Your task to perform on an android device: see creations saved in the google photos Image 0: 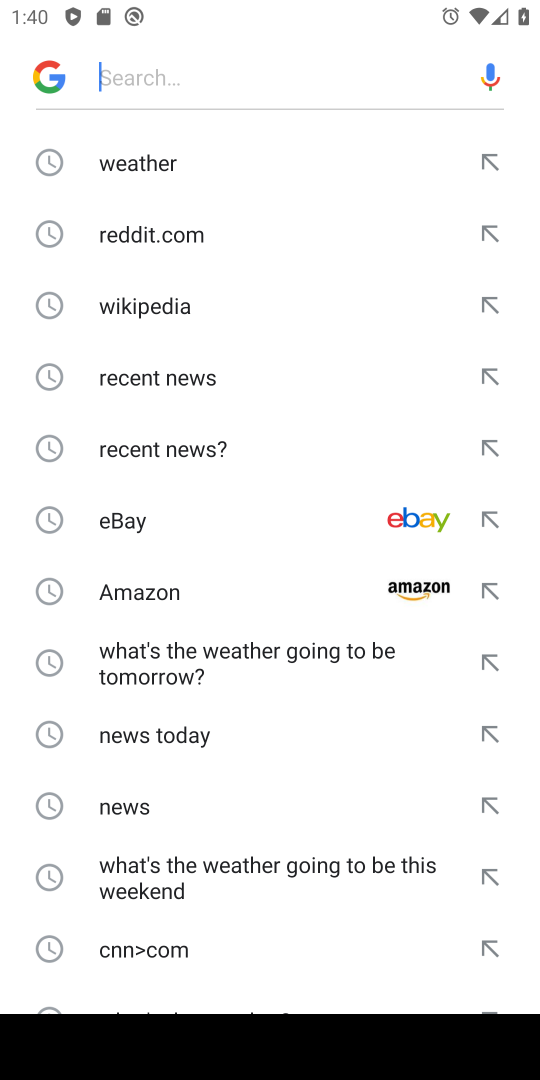
Step 0: press back button
Your task to perform on an android device: see creations saved in the google photos Image 1: 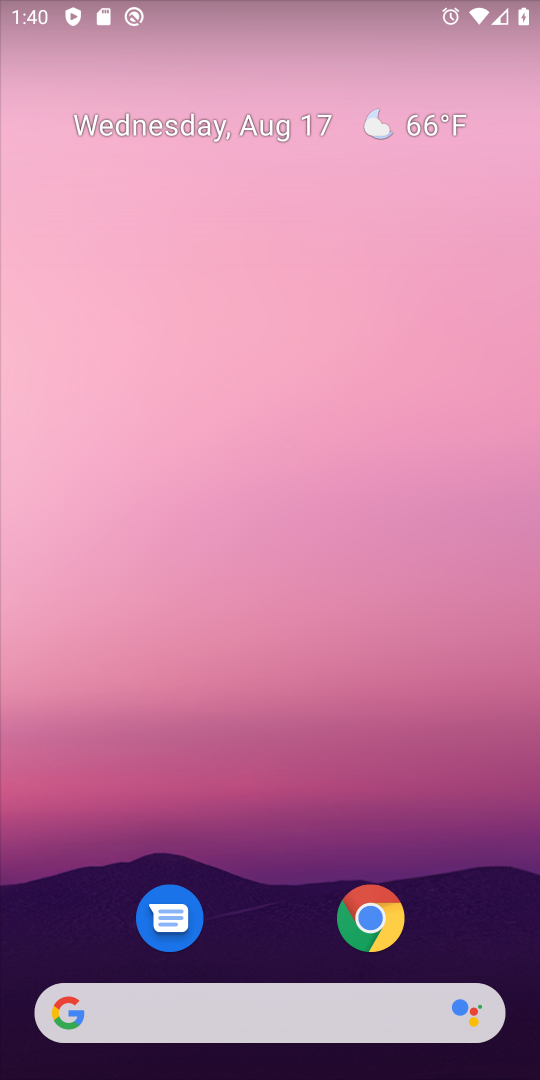
Step 1: drag from (220, 1053) to (229, 240)
Your task to perform on an android device: see creations saved in the google photos Image 2: 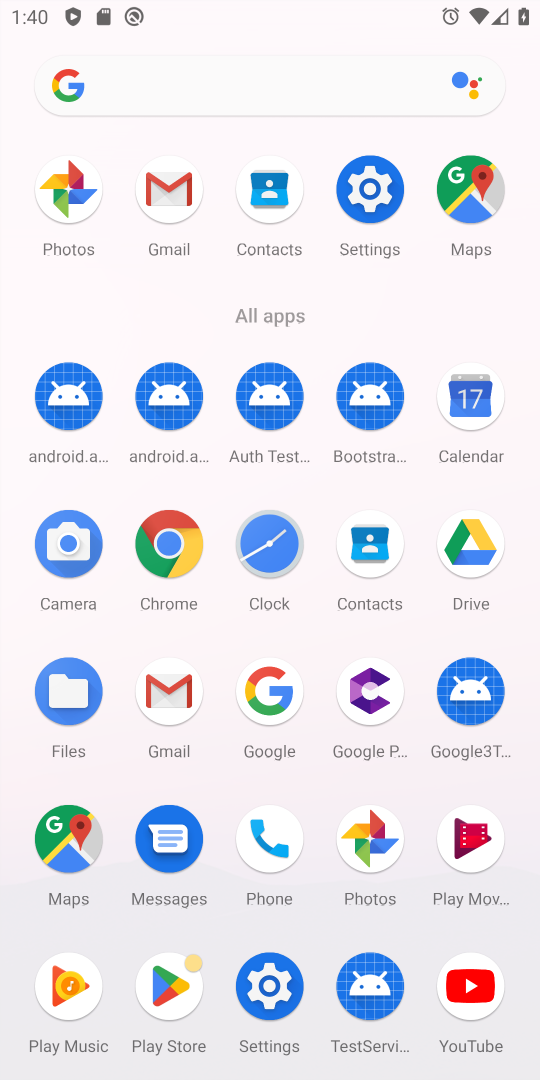
Step 2: click (354, 876)
Your task to perform on an android device: see creations saved in the google photos Image 3: 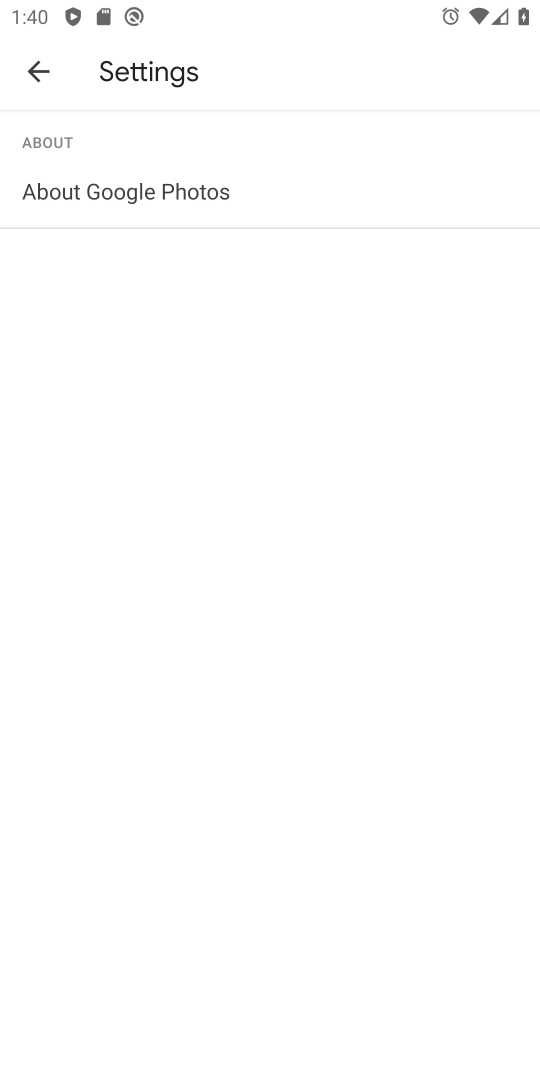
Step 3: click (39, 95)
Your task to perform on an android device: see creations saved in the google photos Image 4: 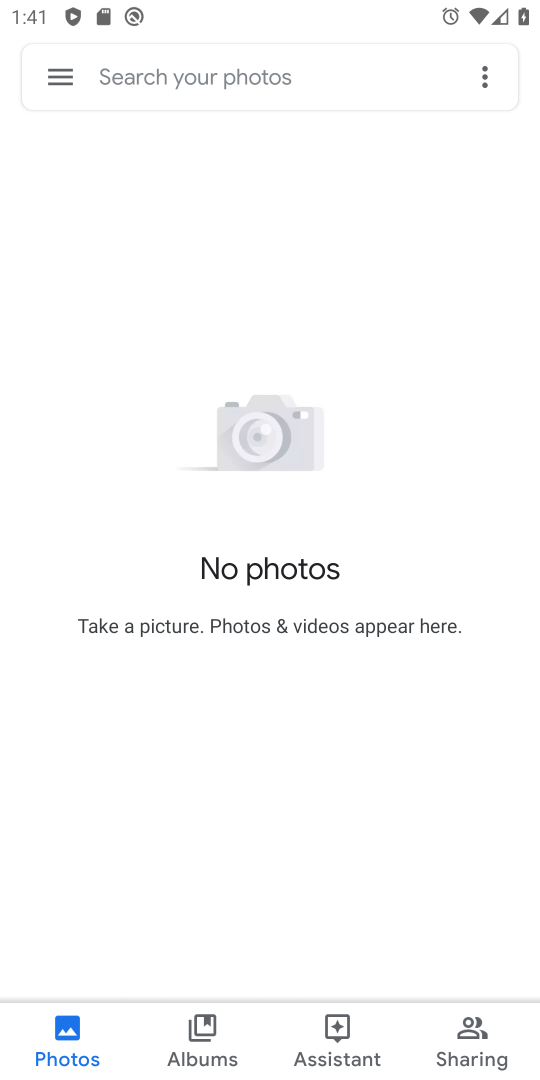
Step 4: click (315, 1052)
Your task to perform on an android device: see creations saved in the google photos Image 5: 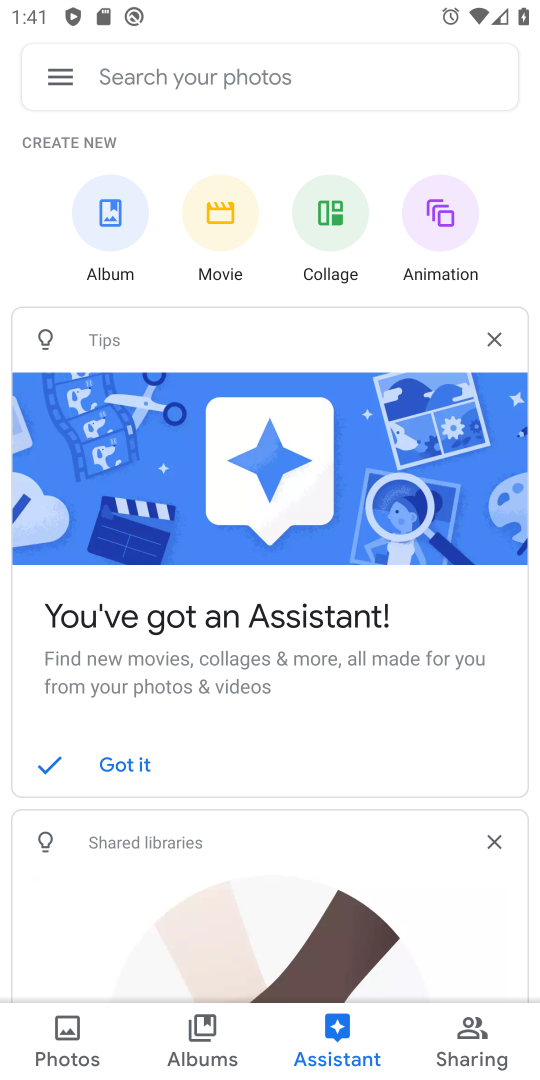
Step 5: task complete